Your task to perform on an android device: Open location settings Image 0: 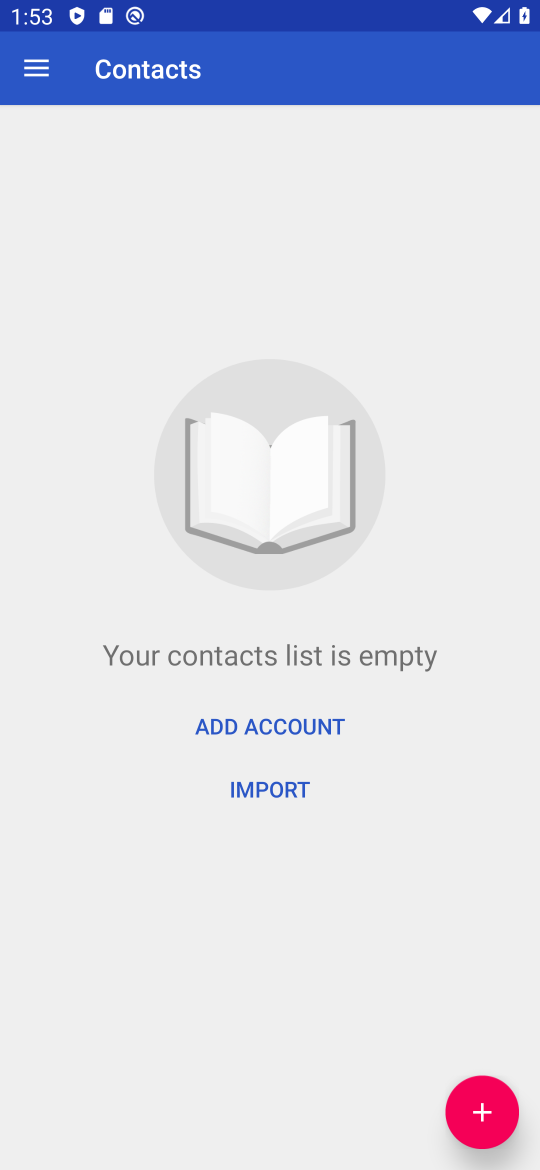
Step 0: press home button
Your task to perform on an android device: Open location settings Image 1: 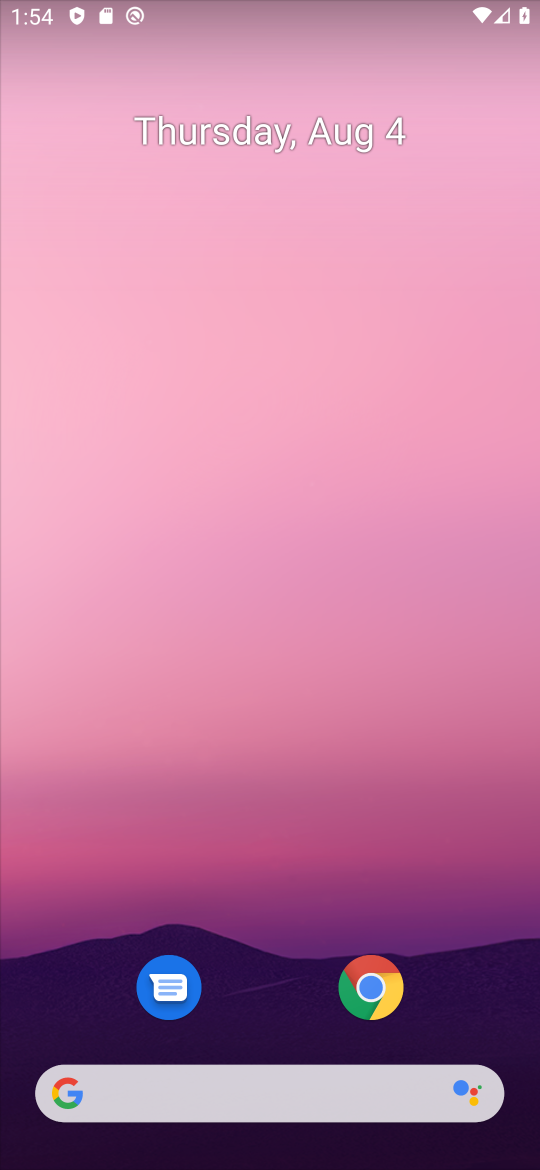
Step 1: drag from (327, 969) to (126, 34)
Your task to perform on an android device: Open location settings Image 2: 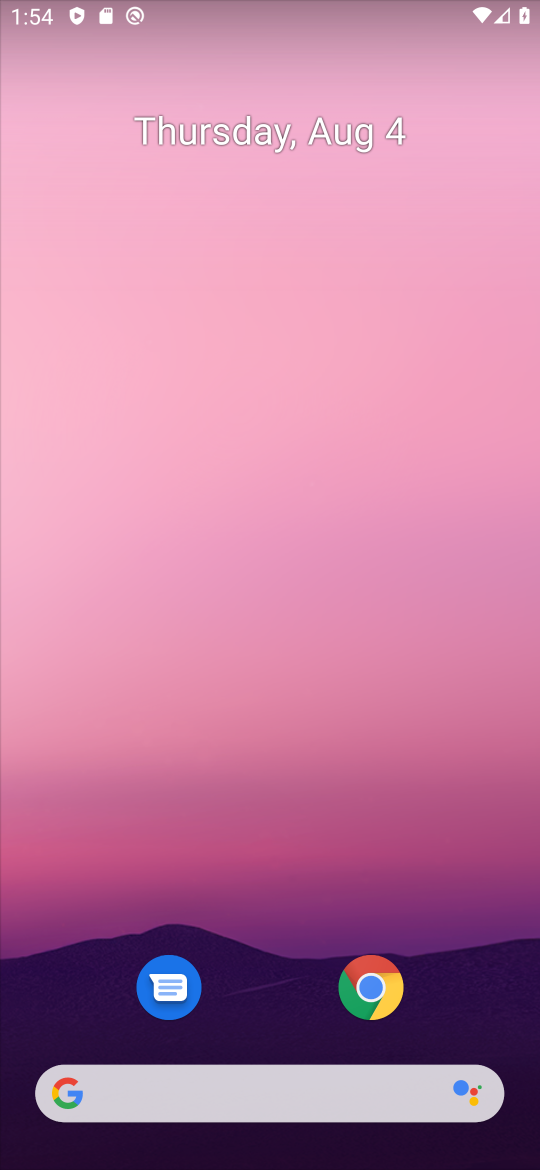
Step 2: drag from (479, 957) to (273, 60)
Your task to perform on an android device: Open location settings Image 3: 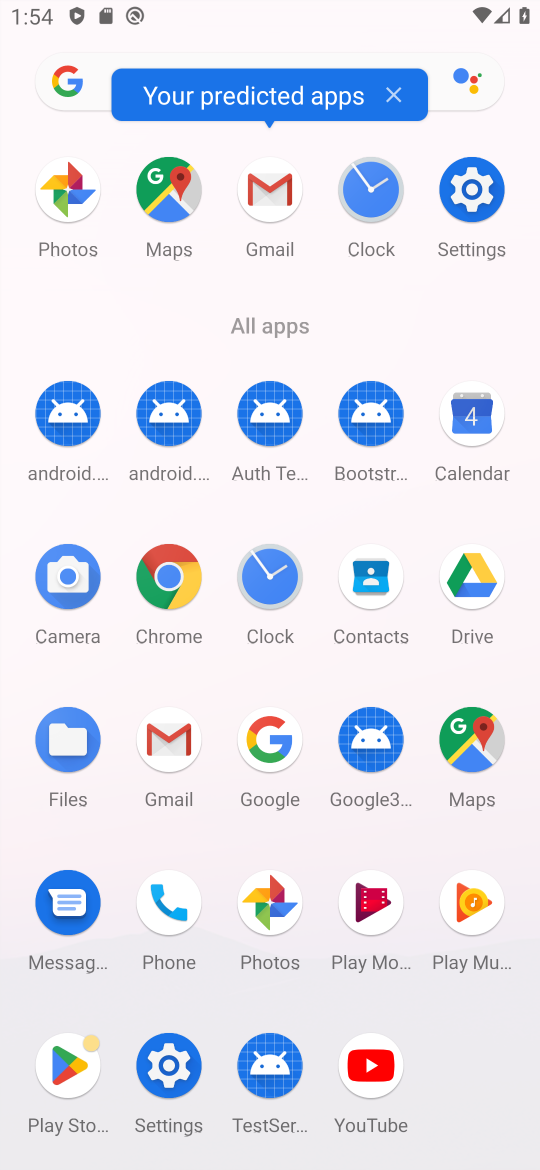
Step 3: click (173, 1068)
Your task to perform on an android device: Open location settings Image 4: 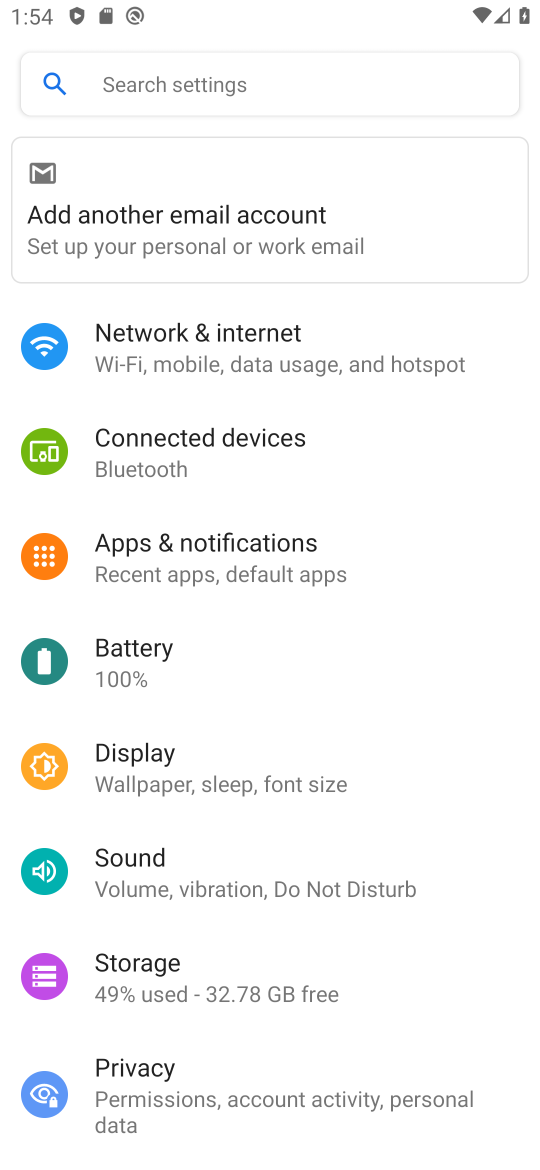
Step 4: drag from (202, 1065) to (279, 299)
Your task to perform on an android device: Open location settings Image 5: 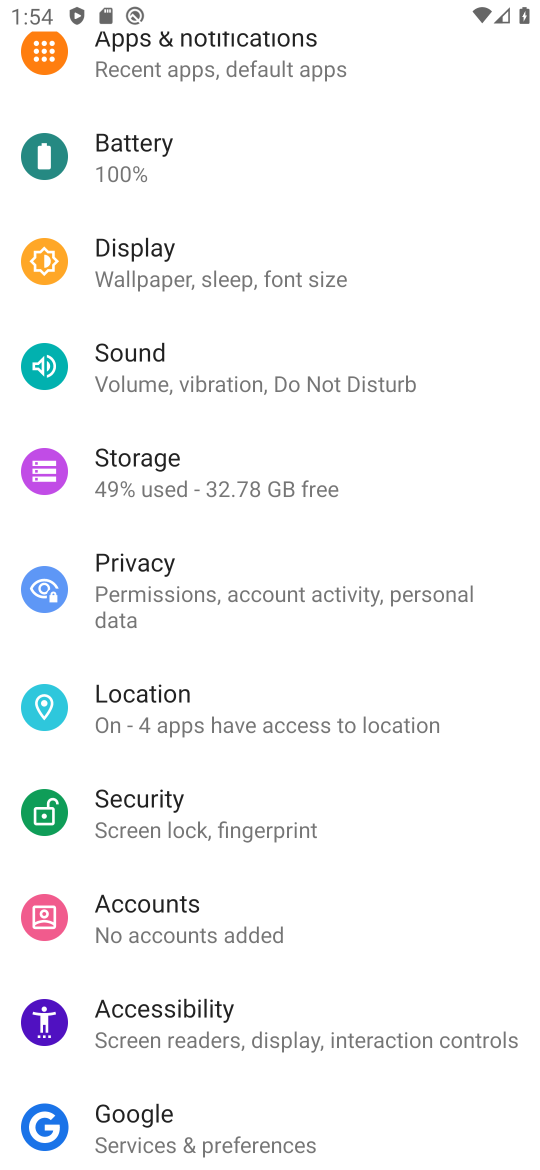
Step 5: click (167, 712)
Your task to perform on an android device: Open location settings Image 6: 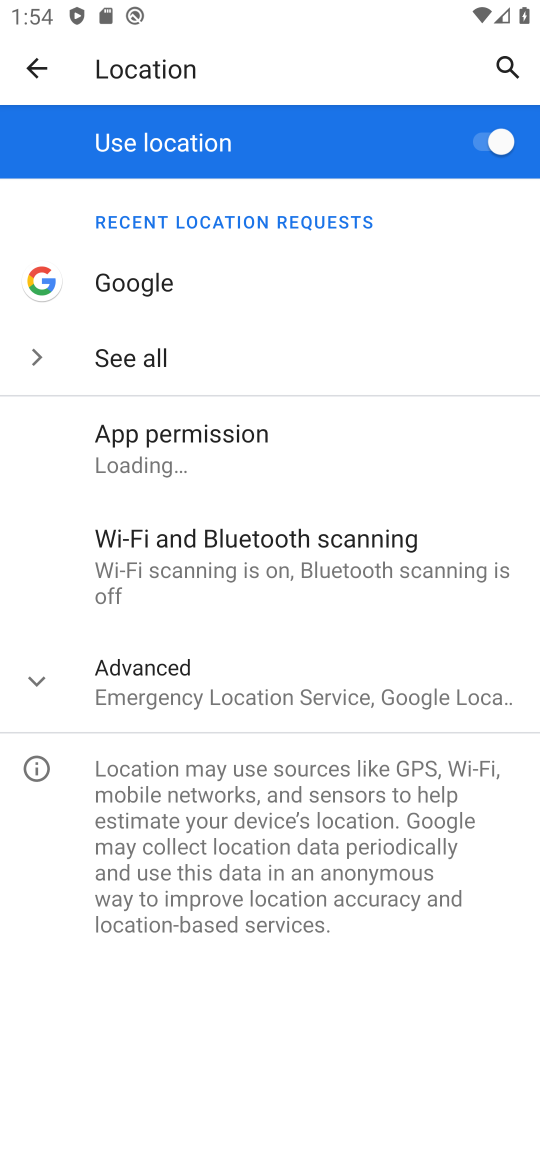
Step 6: task complete